Your task to perform on an android device: What's the weather today? Image 0: 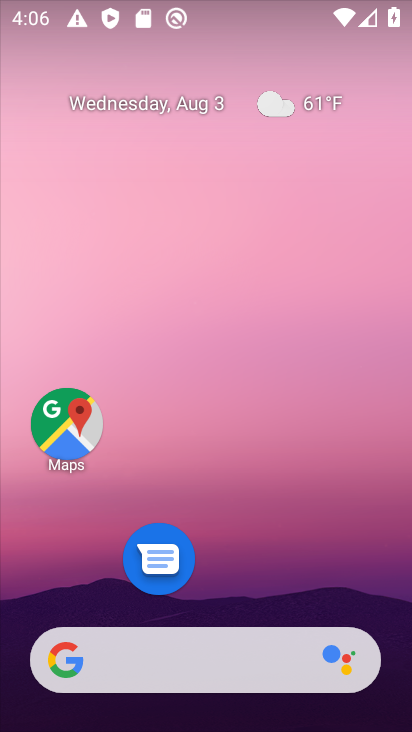
Step 0: drag from (222, 637) to (215, 152)
Your task to perform on an android device: What's the weather today? Image 1: 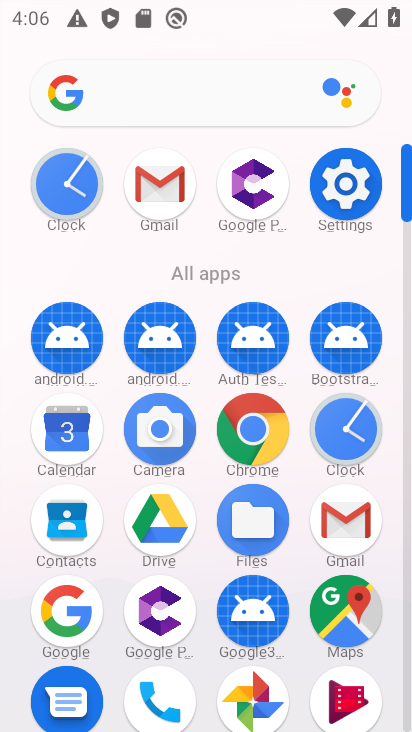
Step 1: drag from (214, 566) to (228, 188)
Your task to perform on an android device: What's the weather today? Image 2: 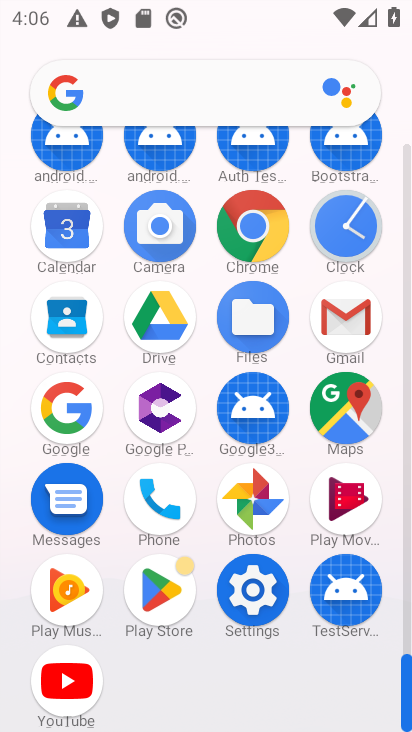
Step 2: click (57, 403)
Your task to perform on an android device: What's the weather today? Image 3: 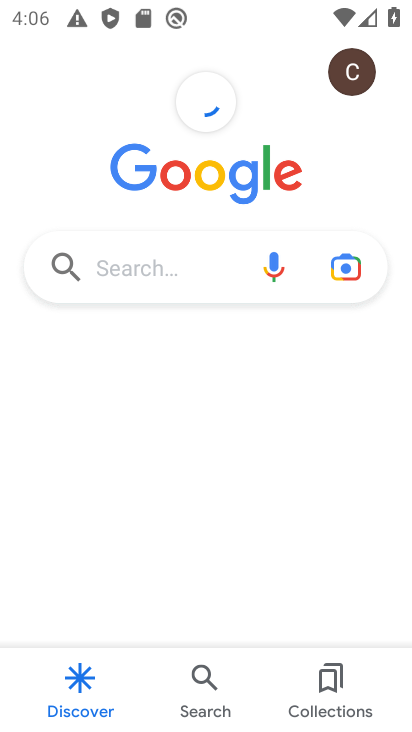
Step 3: click (180, 275)
Your task to perform on an android device: What's the weather today? Image 4: 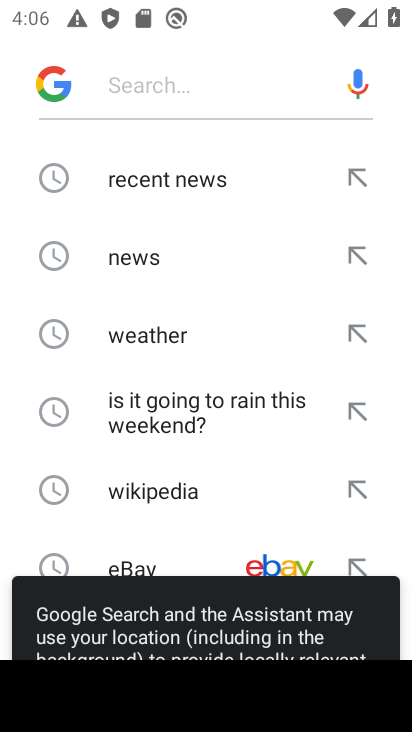
Step 4: click (162, 342)
Your task to perform on an android device: What's the weather today? Image 5: 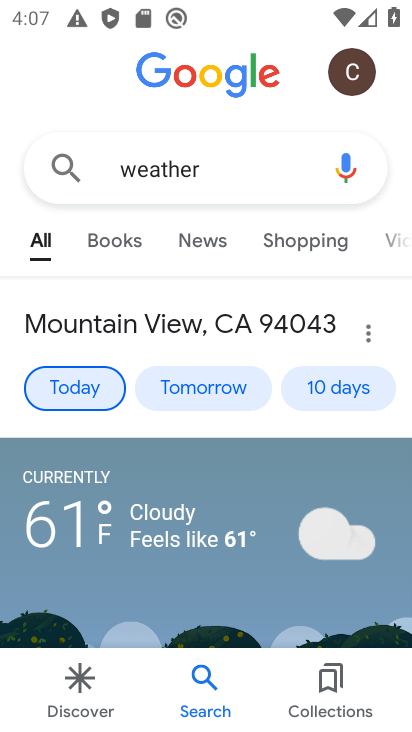
Step 5: task complete